Your task to perform on an android device: Open my contact list Image 0: 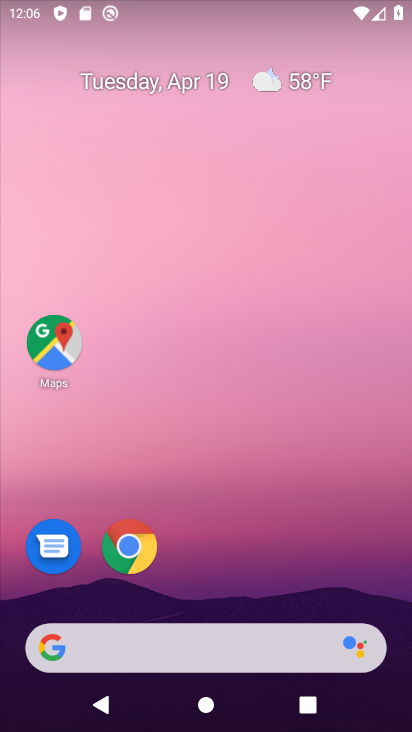
Step 0: click (243, 0)
Your task to perform on an android device: Open my contact list Image 1: 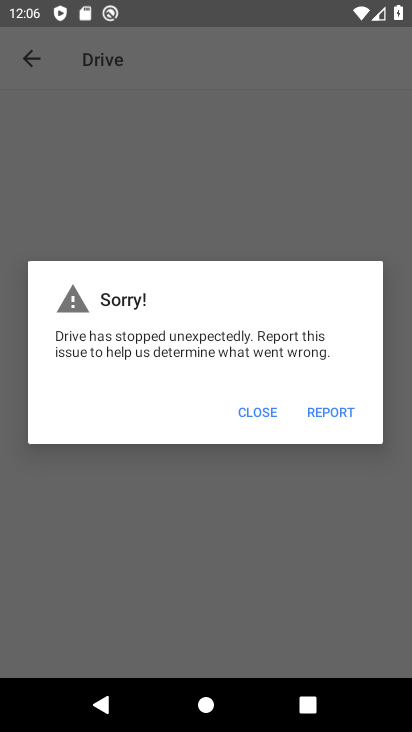
Step 1: press home button
Your task to perform on an android device: Open my contact list Image 2: 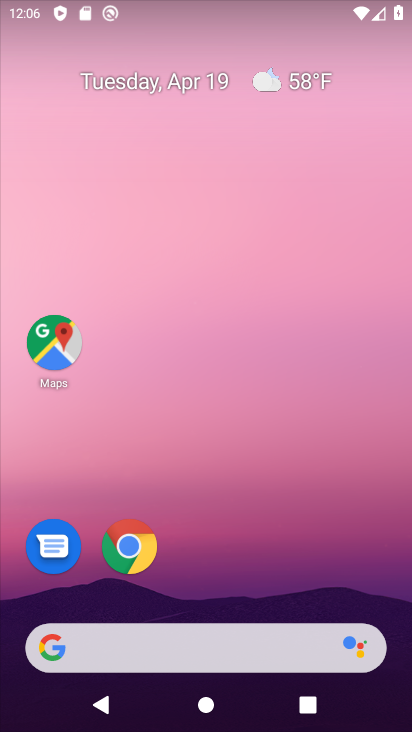
Step 2: click (235, 78)
Your task to perform on an android device: Open my contact list Image 3: 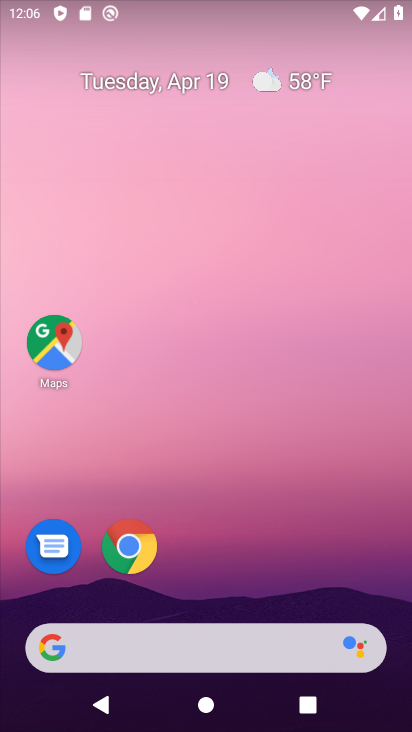
Step 3: drag from (202, 582) to (255, 54)
Your task to perform on an android device: Open my contact list Image 4: 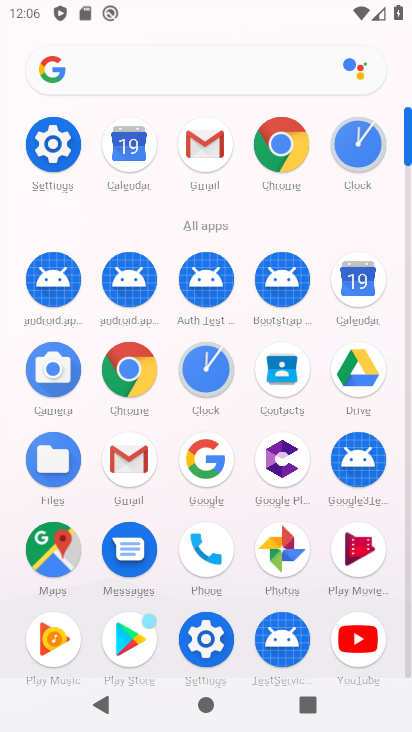
Step 4: click (279, 366)
Your task to perform on an android device: Open my contact list Image 5: 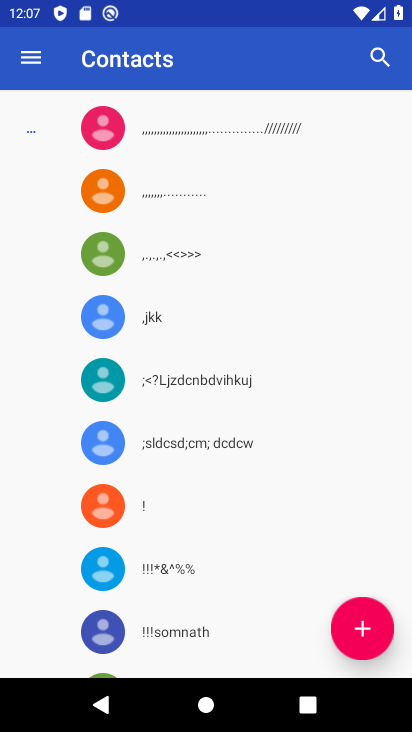
Step 5: task complete